Your task to perform on an android device: Open Amazon Image 0: 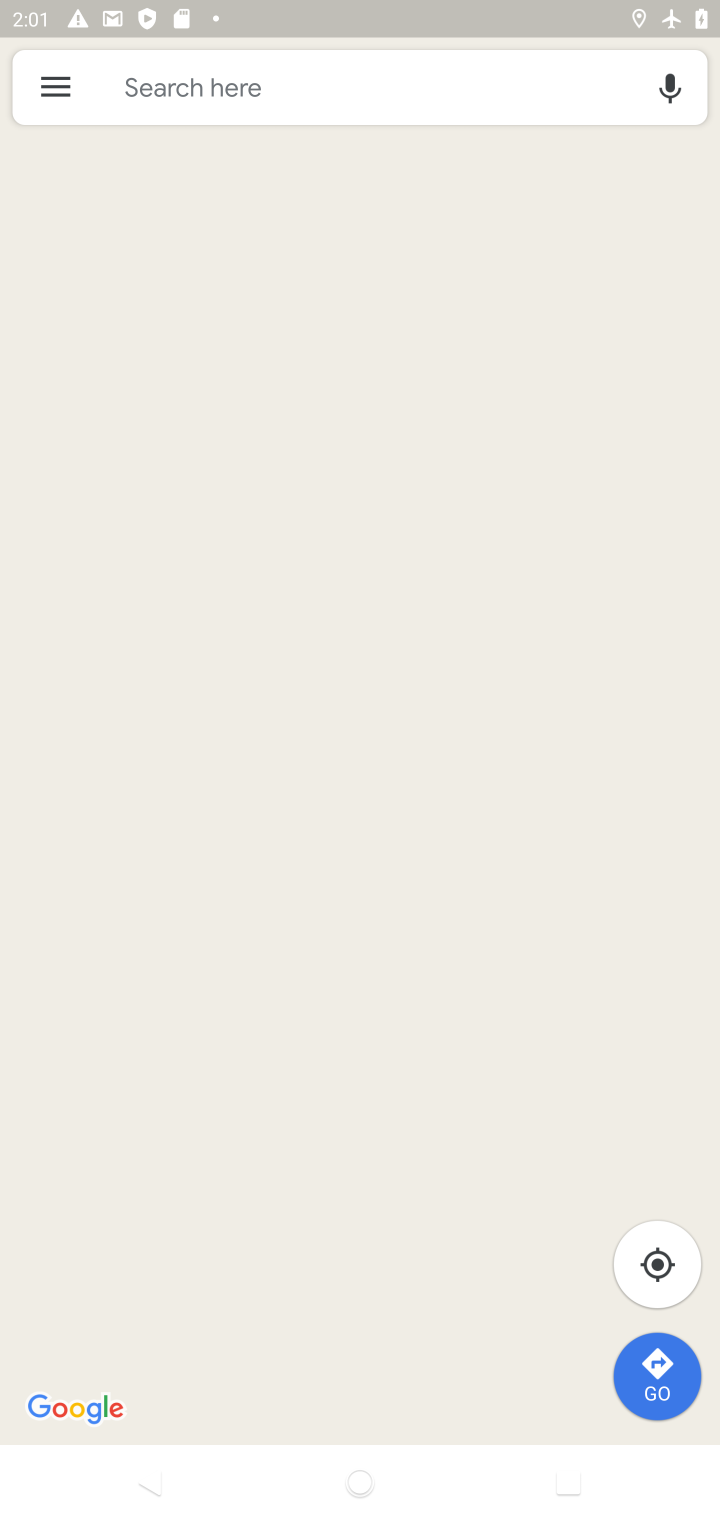
Step 0: click (577, 677)
Your task to perform on an android device: Open Amazon Image 1: 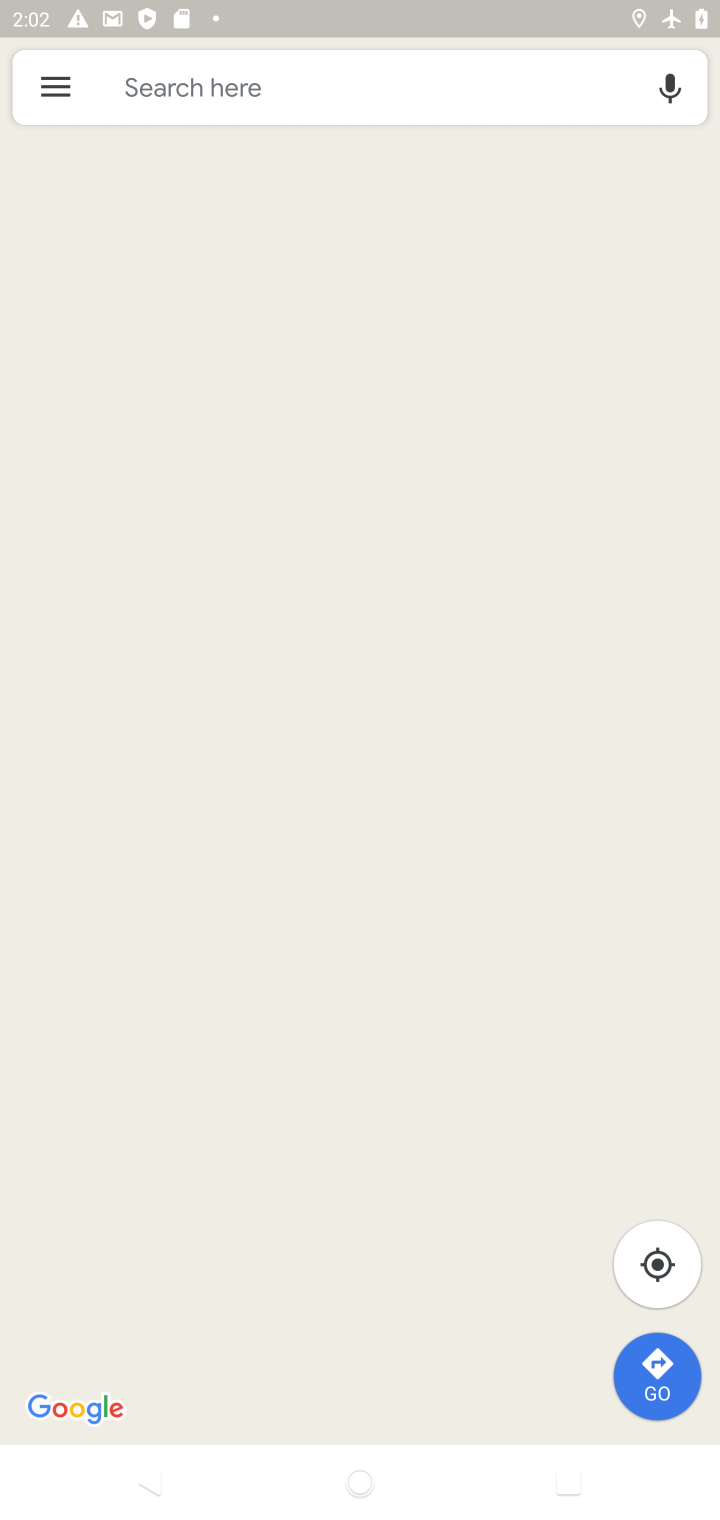
Step 1: press home button
Your task to perform on an android device: Open Amazon Image 2: 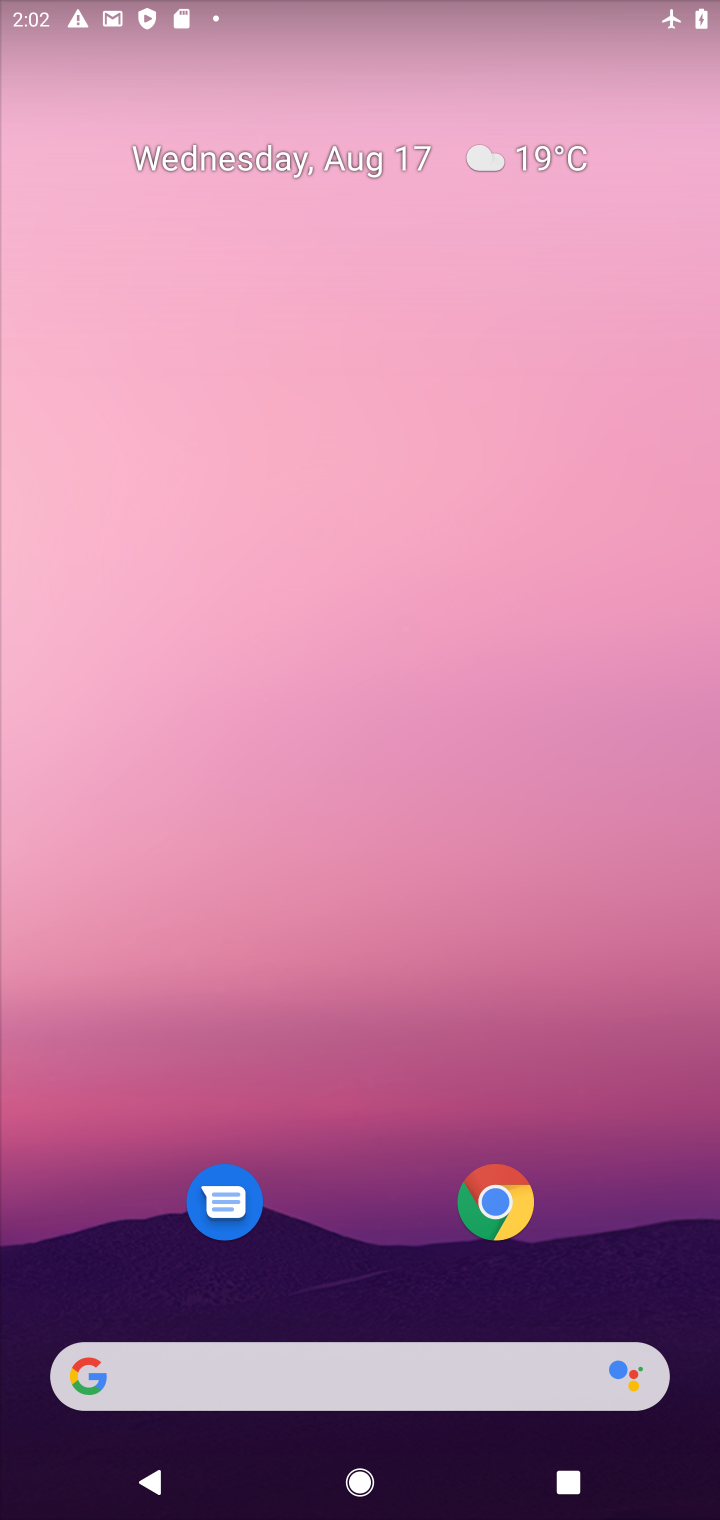
Step 2: drag from (326, 1332) to (175, 4)
Your task to perform on an android device: Open Amazon Image 3: 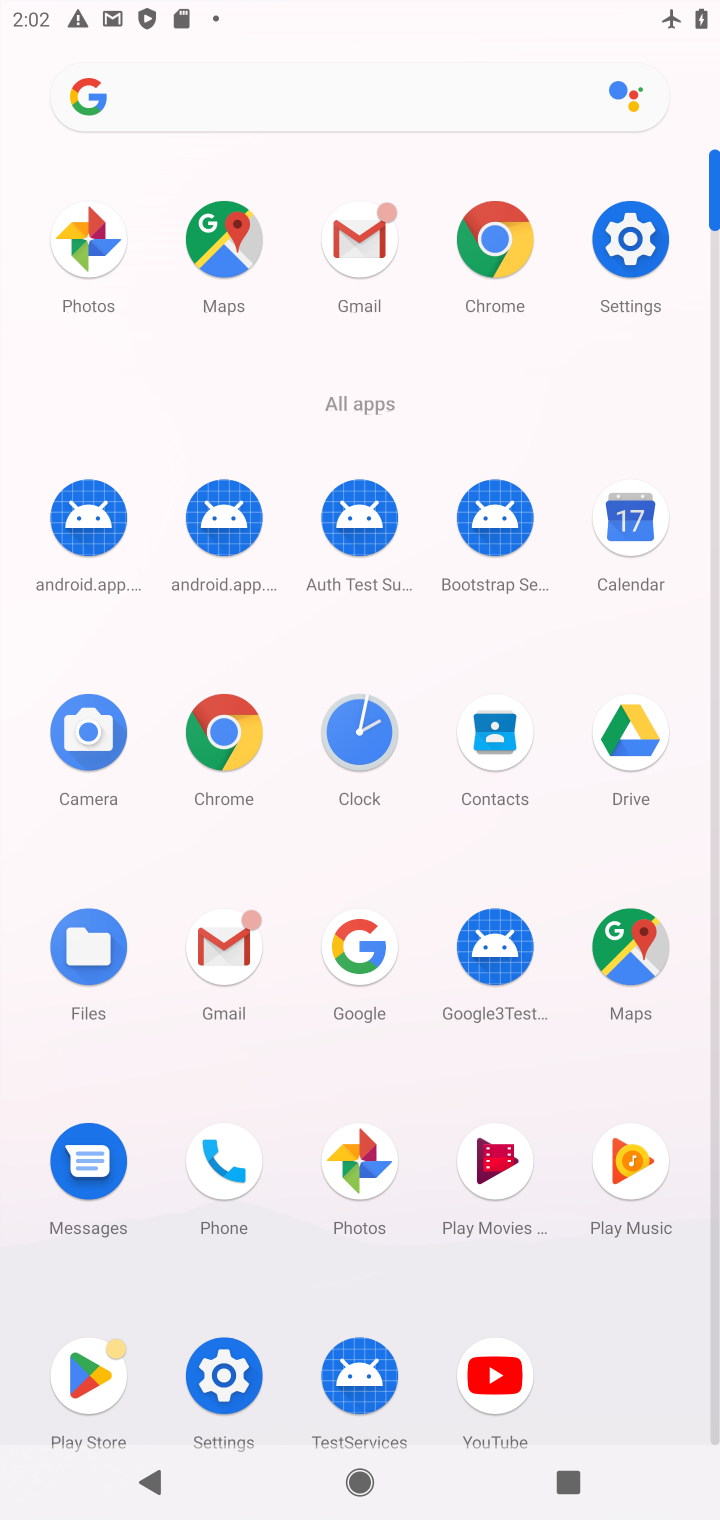
Step 3: click (235, 743)
Your task to perform on an android device: Open Amazon Image 4: 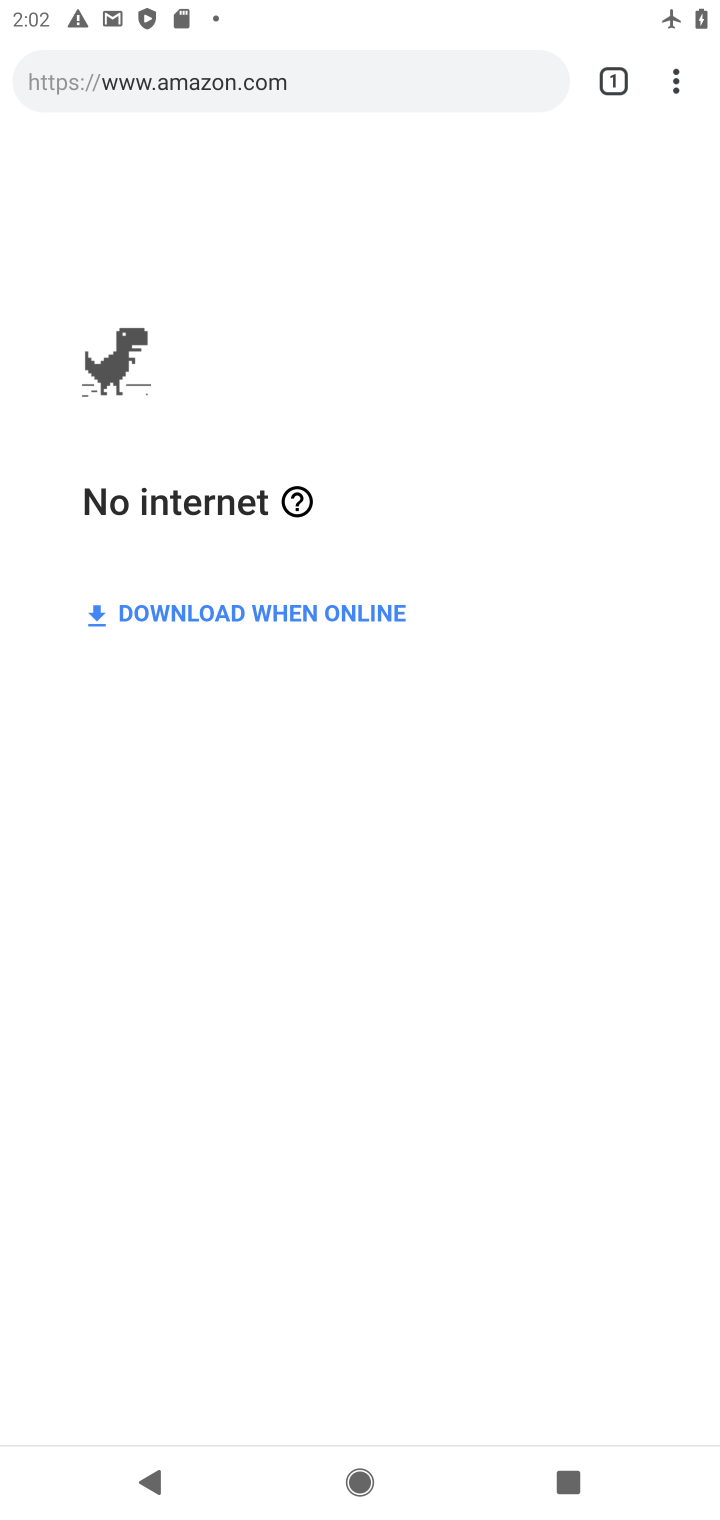
Step 4: task complete